Your task to perform on an android device: What's the weather today? Image 0: 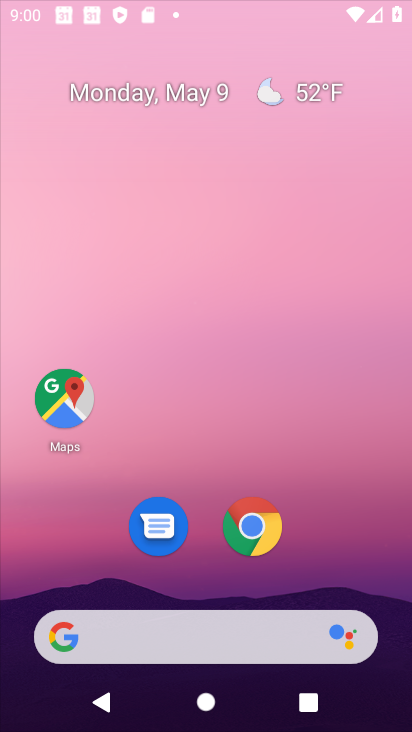
Step 0: click (320, 70)
Your task to perform on an android device: What's the weather today? Image 1: 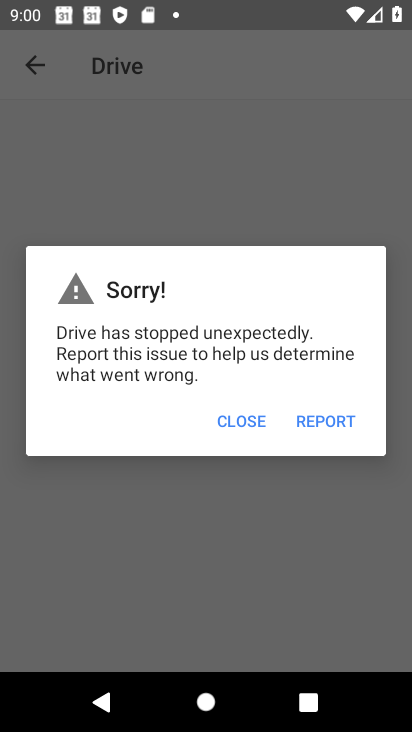
Step 1: press home button
Your task to perform on an android device: What's the weather today? Image 2: 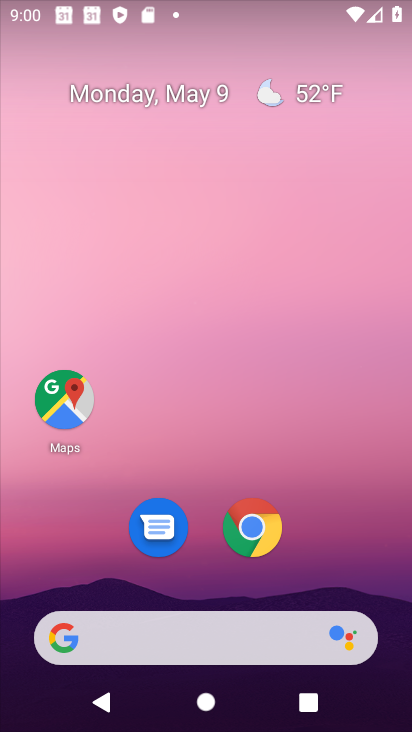
Step 2: click (283, 533)
Your task to perform on an android device: What's the weather today? Image 3: 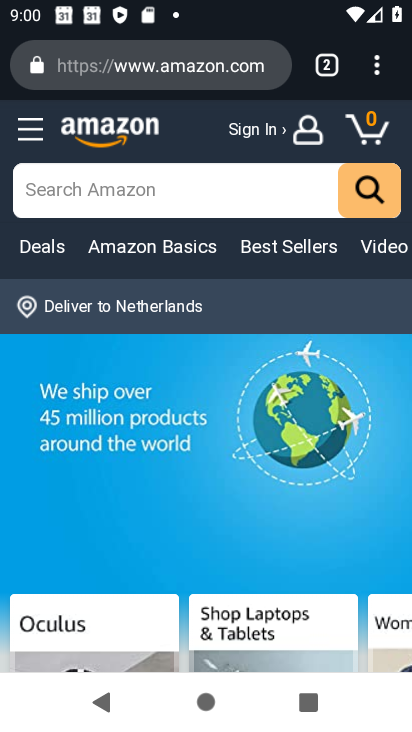
Step 3: click (194, 55)
Your task to perform on an android device: What's the weather today? Image 4: 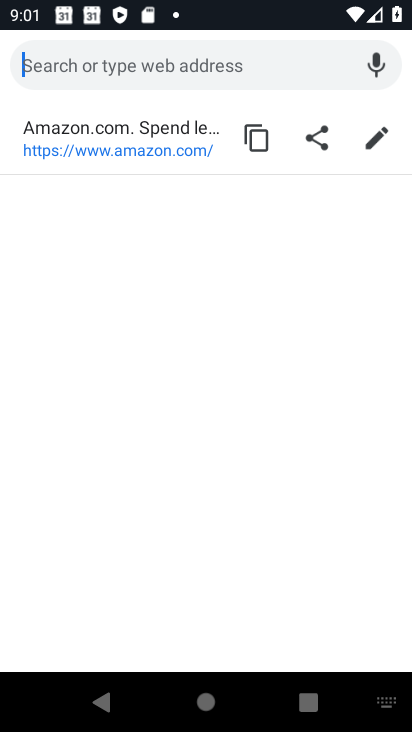
Step 4: type "what's the weather today"
Your task to perform on an android device: What's the weather today? Image 5: 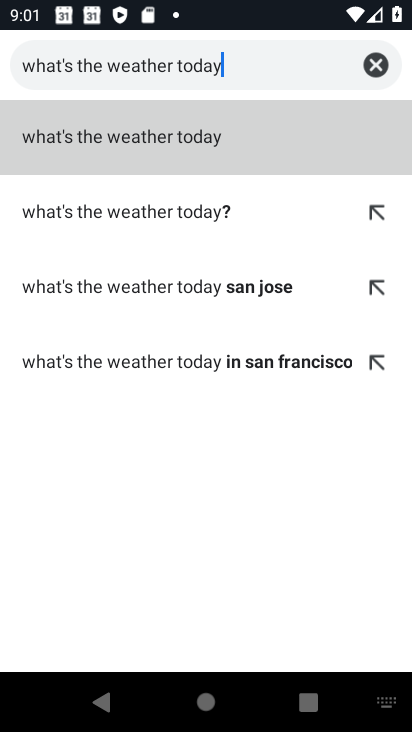
Step 5: click (75, 199)
Your task to perform on an android device: What's the weather today? Image 6: 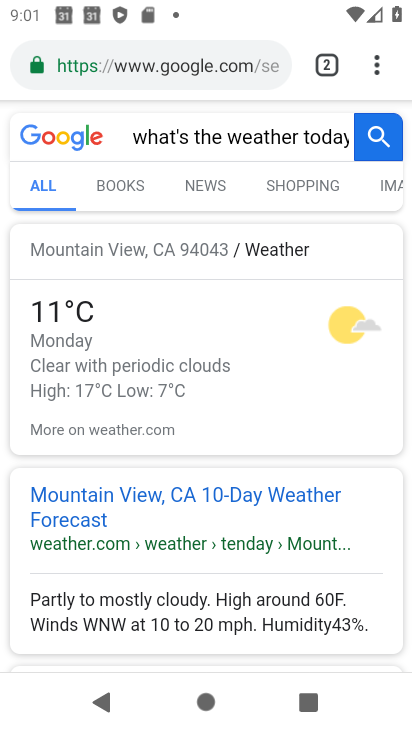
Step 6: task complete